Your task to perform on an android device: change the clock display to digital Image 0: 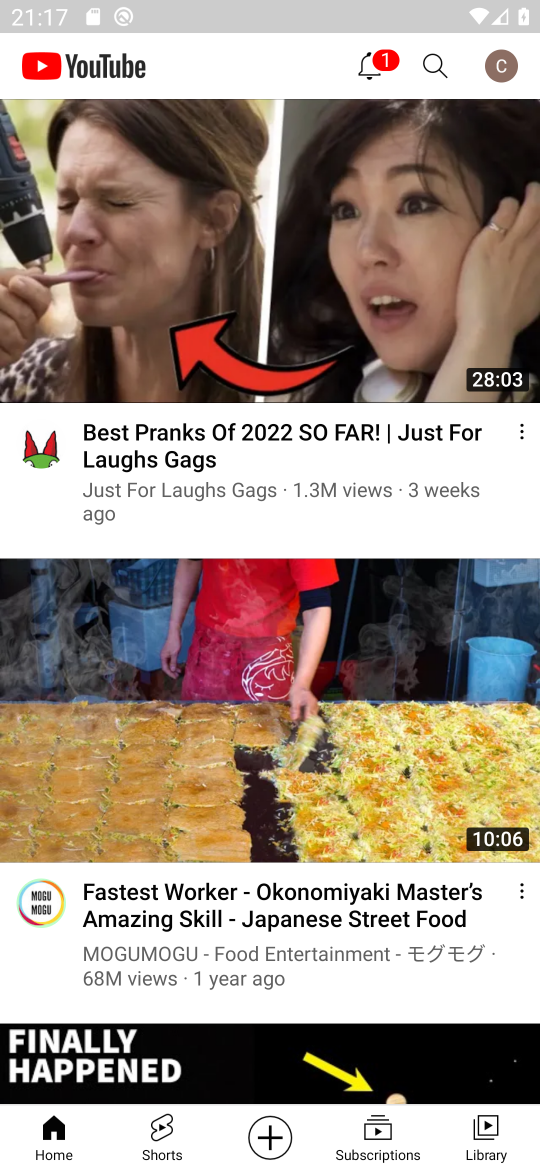
Step 0: press home button
Your task to perform on an android device: change the clock display to digital Image 1: 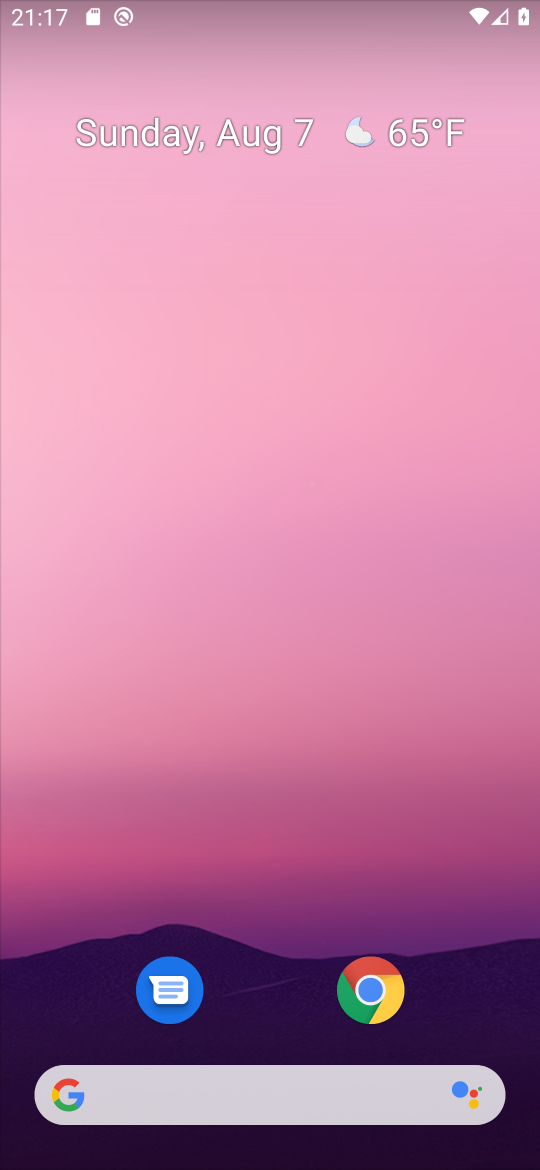
Step 1: drag from (296, 872) to (242, 11)
Your task to perform on an android device: change the clock display to digital Image 2: 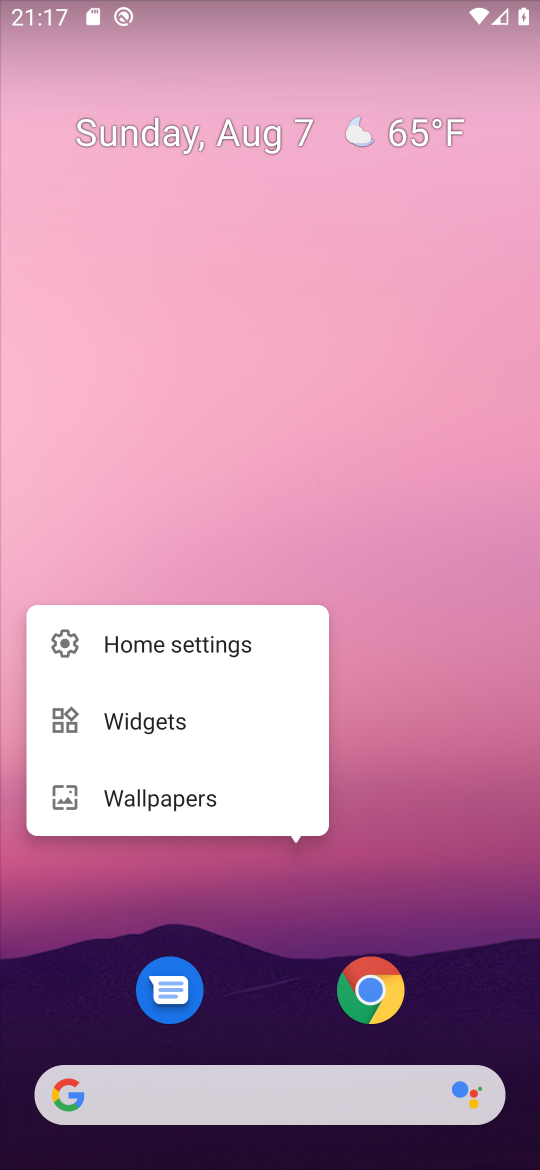
Step 2: click (388, 766)
Your task to perform on an android device: change the clock display to digital Image 3: 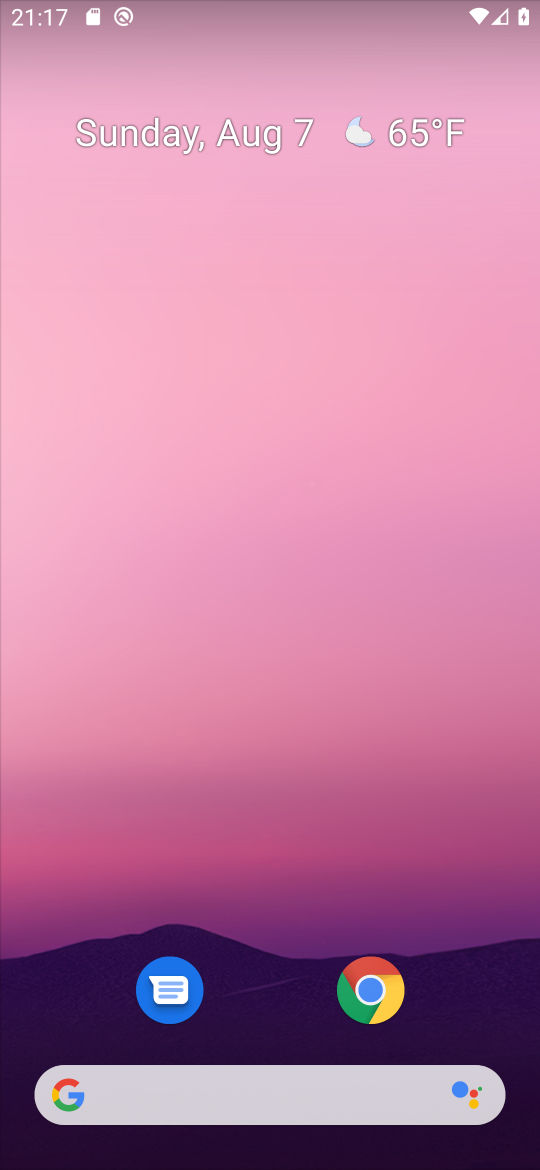
Step 3: drag from (266, 958) to (317, 33)
Your task to perform on an android device: change the clock display to digital Image 4: 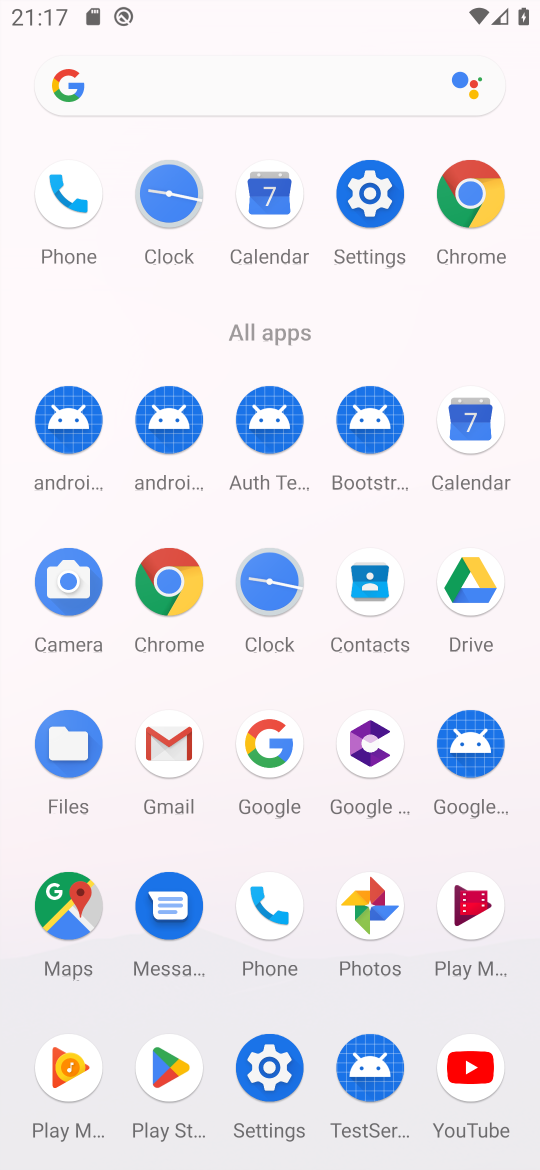
Step 4: click (178, 196)
Your task to perform on an android device: change the clock display to digital Image 5: 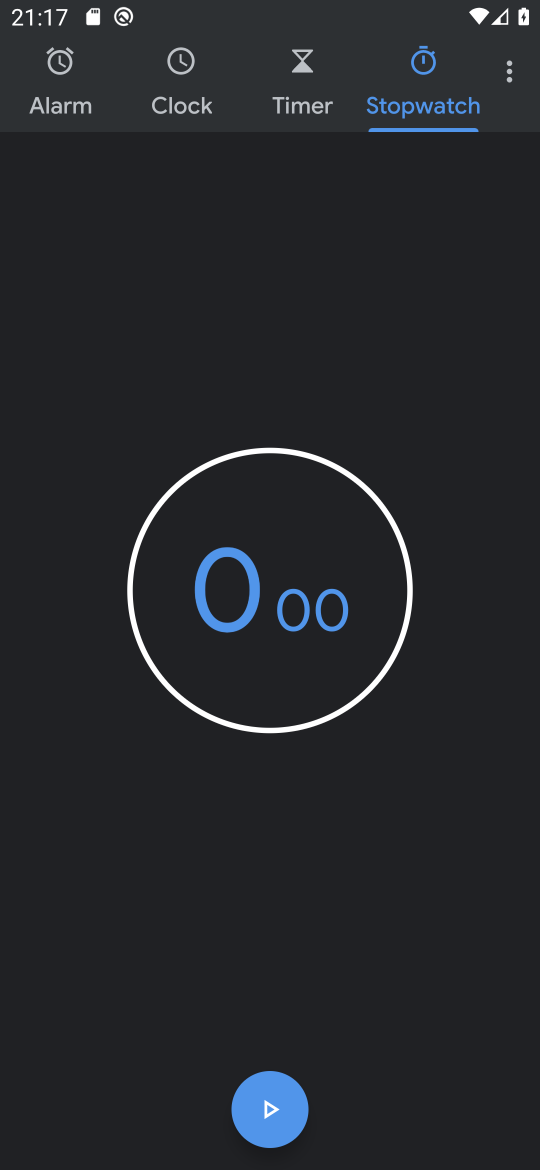
Step 5: click (168, 68)
Your task to perform on an android device: change the clock display to digital Image 6: 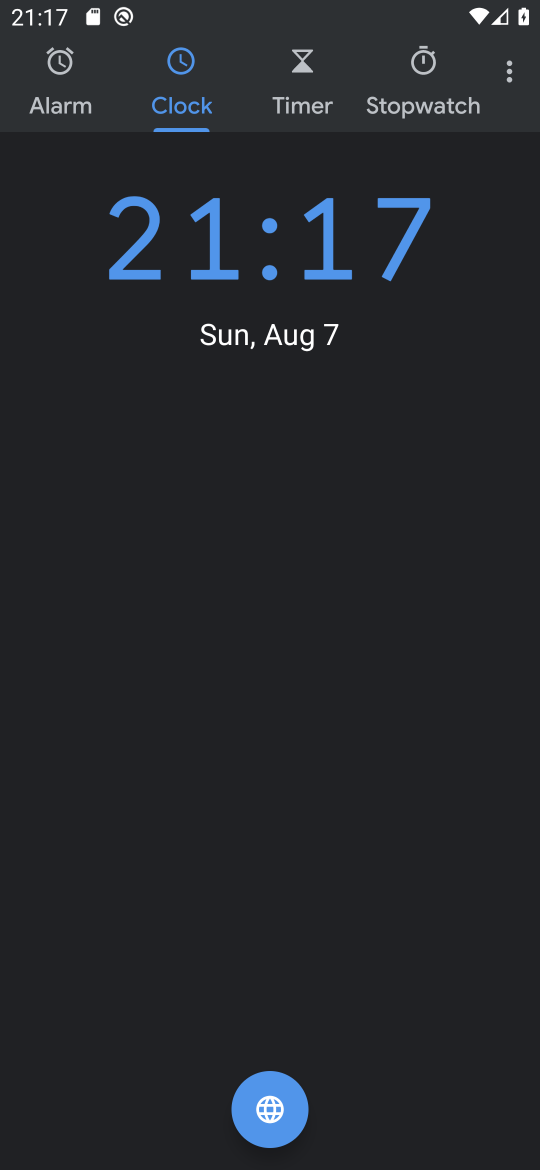
Step 6: task complete